Your task to perform on an android device: turn on the 24-hour format for clock Image 0: 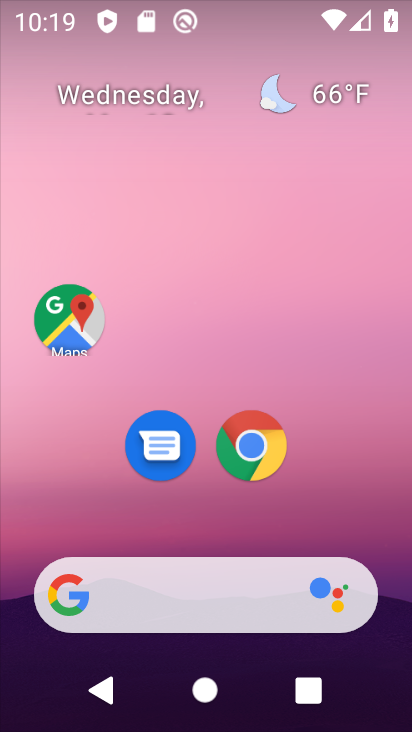
Step 0: drag from (206, 512) to (241, 43)
Your task to perform on an android device: turn on the 24-hour format for clock Image 1: 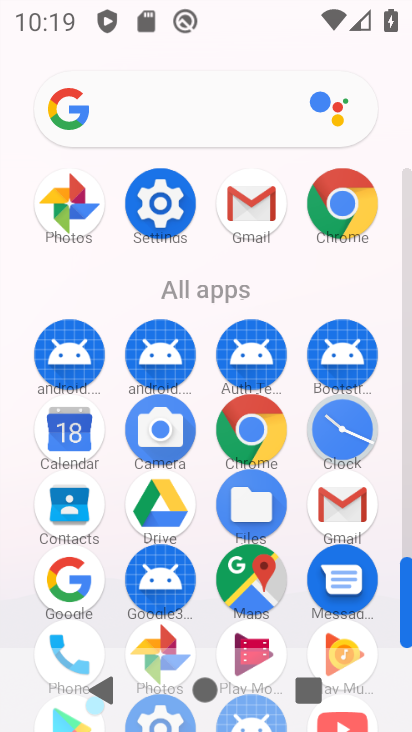
Step 1: click (339, 438)
Your task to perform on an android device: turn on the 24-hour format for clock Image 2: 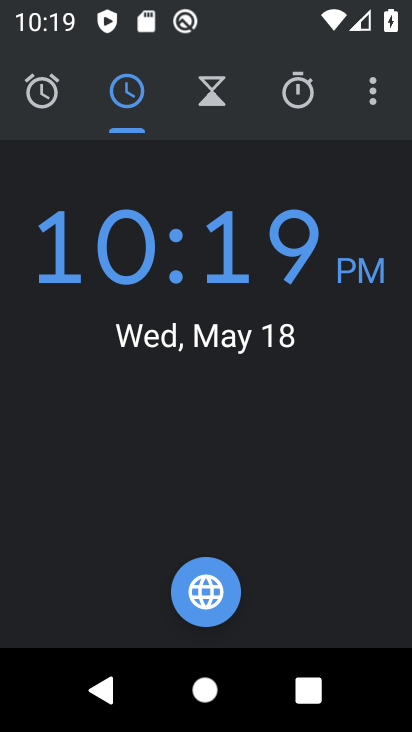
Step 2: click (361, 83)
Your task to perform on an android device: turn on the 24-hour format for clock Image 3: 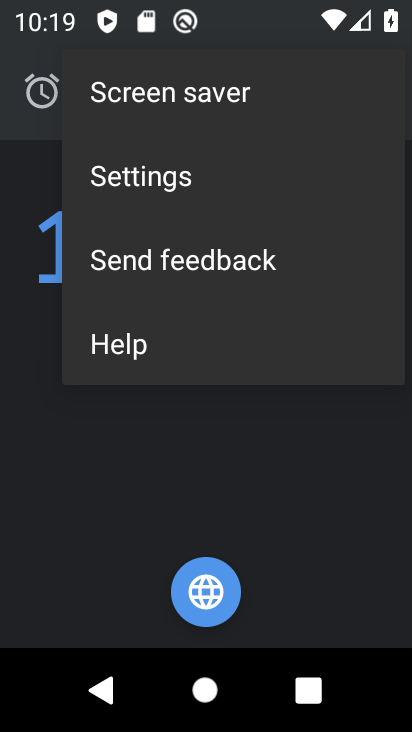
Step 3: click (195, 178)
Your task to perform on an android device: turn on the 24-hour format for clock Image 4: 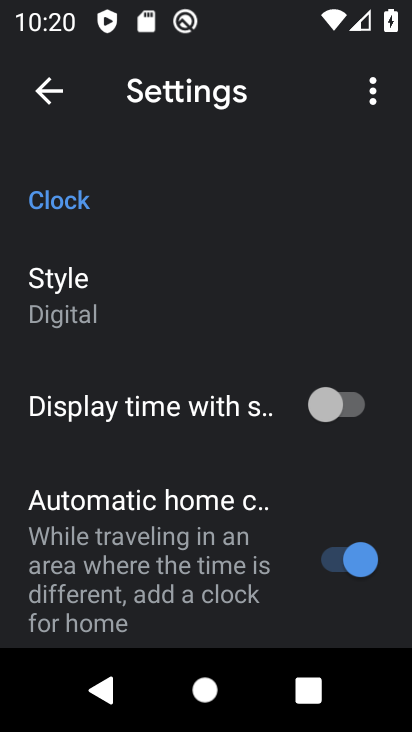
Step 4: drag from (175, 526) to (248, 120)
Your task to perform on an android device: turn on the 24-hour format for clock Image 5: 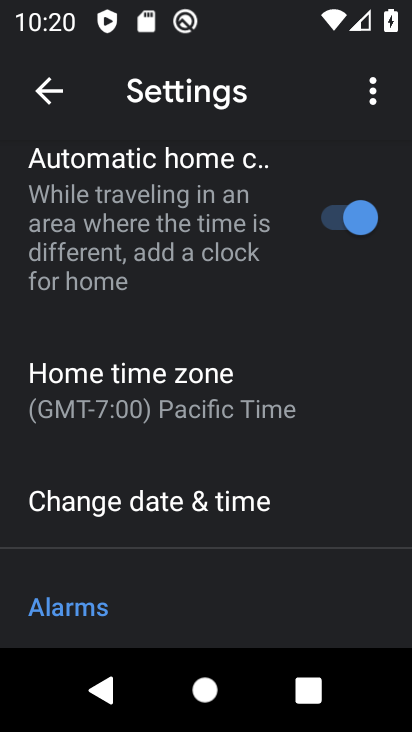
Step 5: click (154, 485)
Your task to perform on an android device: turn on the 24-hour format for clock Image 6: 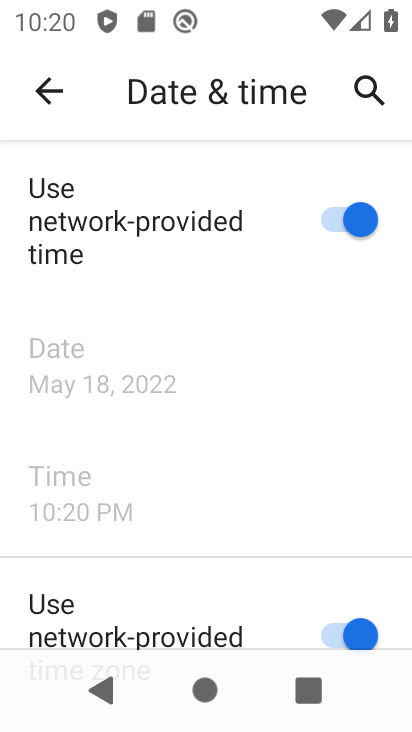
Step 6: drag from (187, 574) to (301, 158)
Your task to perform on an android device: turn on the 24-hour format for clock Image 7: 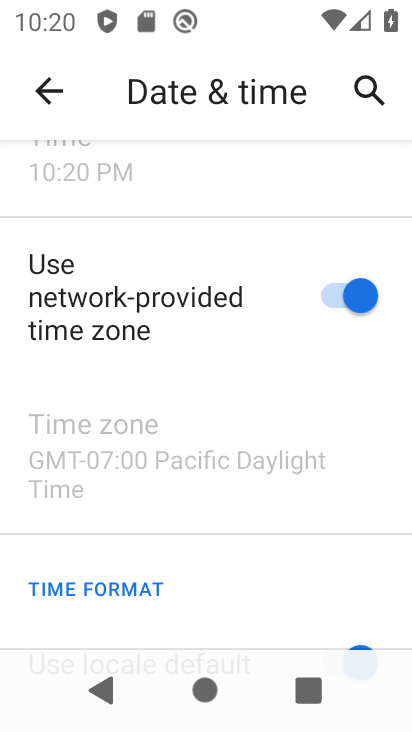
Step 7: drag from (218, 578) to (278, 180)
Your task to perform on an android device: turn on the 24-hour format for clock Image 8: 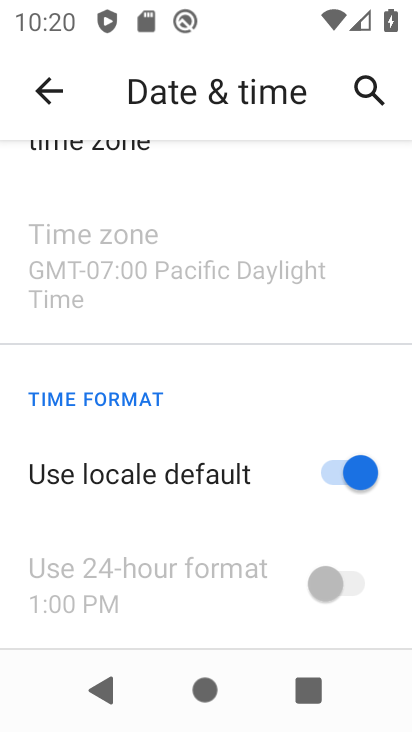
Step 8: click (359, 461)
Your task to perform on an android device: turn on the 24-hour format for clock Image 9: 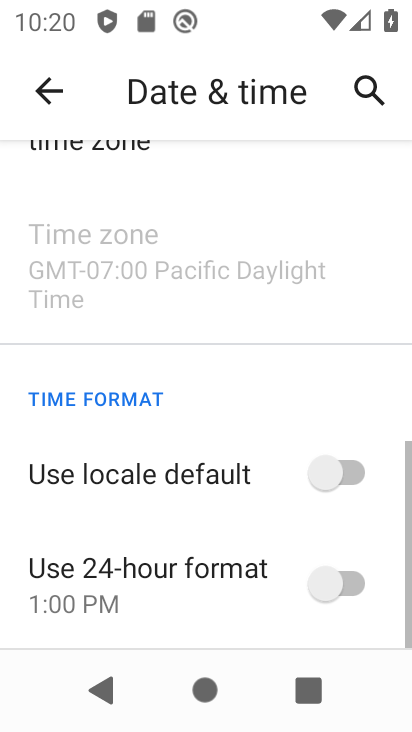
Step 9: click (324, 577)
Your task to perform on an android device: turn on the 24-hour format for clock Image 10: 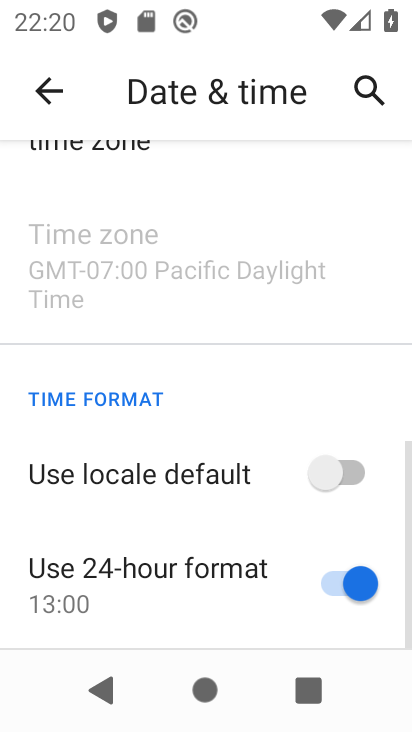
Step 10: task complete